Your task to perform on an android device: see creations saved in the google photos Image 0: 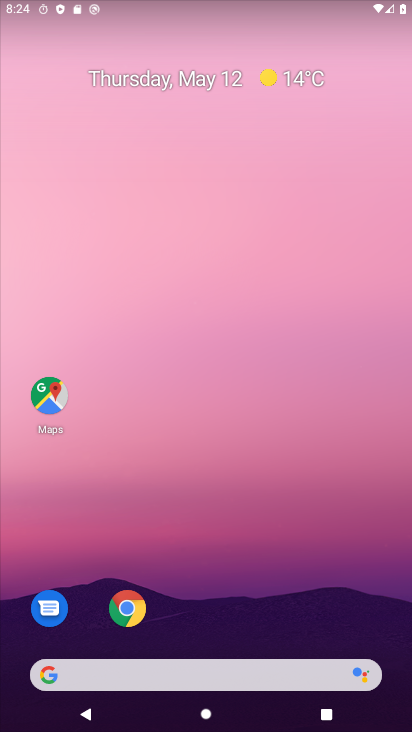
Step 0: drag from (294, 559) to (352, 147)
Your task to perform on an android device: see creations saved in the google photos Image 1: 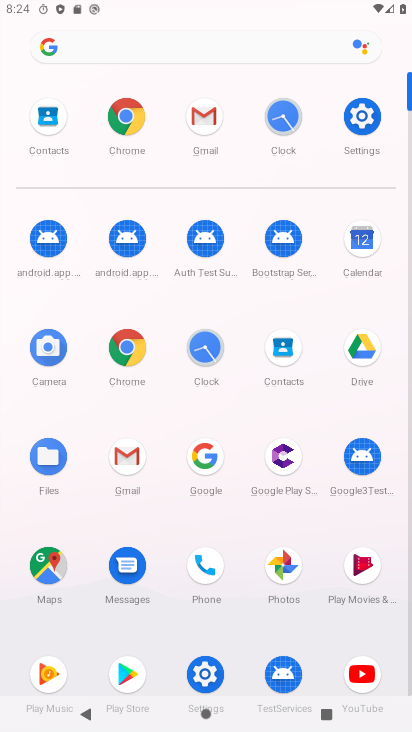
Step 1: click (301, 562)
Your task to perform on an android device: see creations saved in the google photos Image 2: 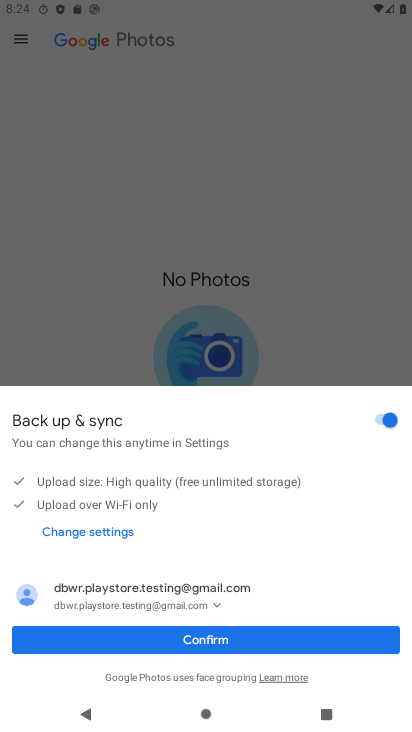
Step 2: click (200, 634)
Your task to perform on an android device: see creations saved in the google photos Image 3: 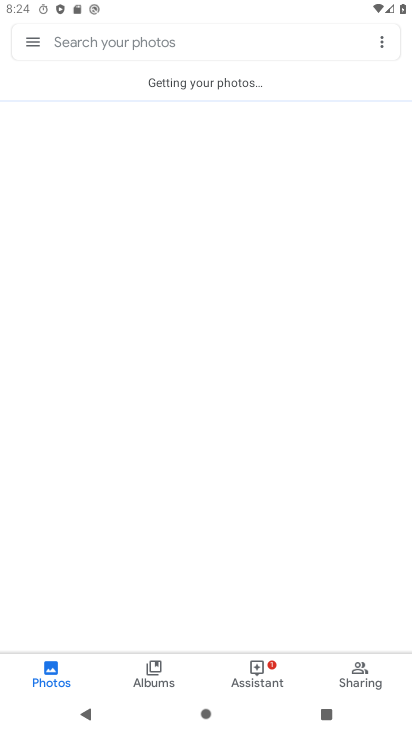
Step 3: click (395, 34)
Your task to perform on an android device: see creations saved in the google photos Image 4: 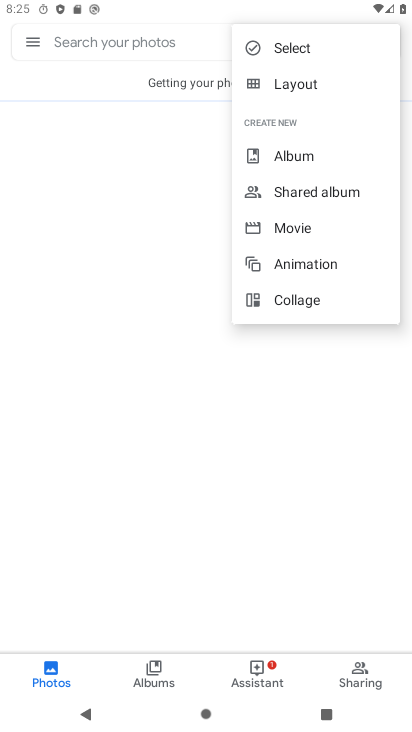
Step 4: click (73, 41)
Your task to perform on an android device: see creations saved in the google photos Image 5: 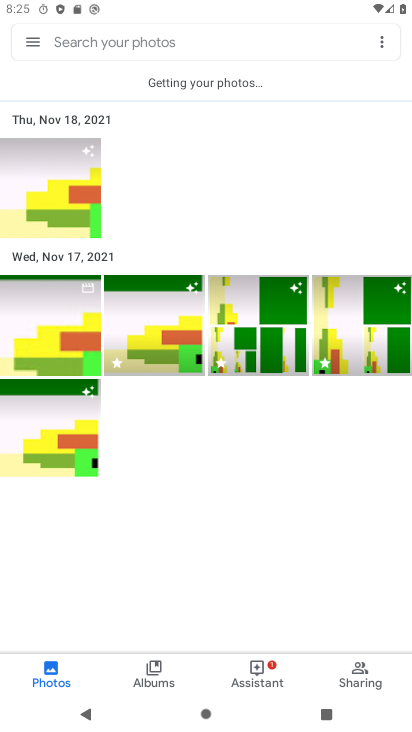
Step 5: click (73, 41)
Your task to perform on an android device: see creations saved in the google photos Image 6: 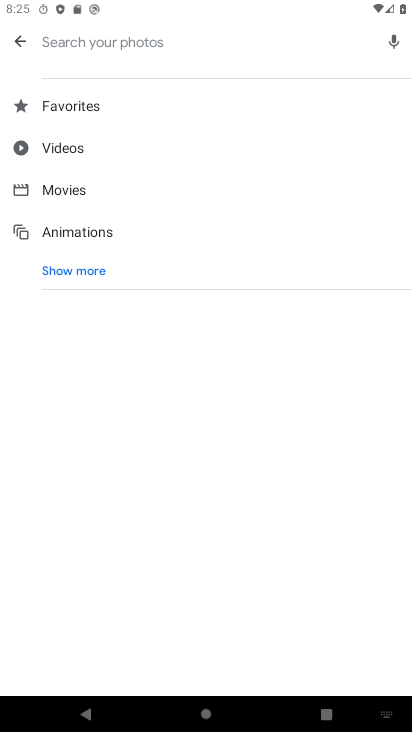
Step 6: click (75, 264)
Your task to perform on an android device: see creations saved in the google photos Image 7: 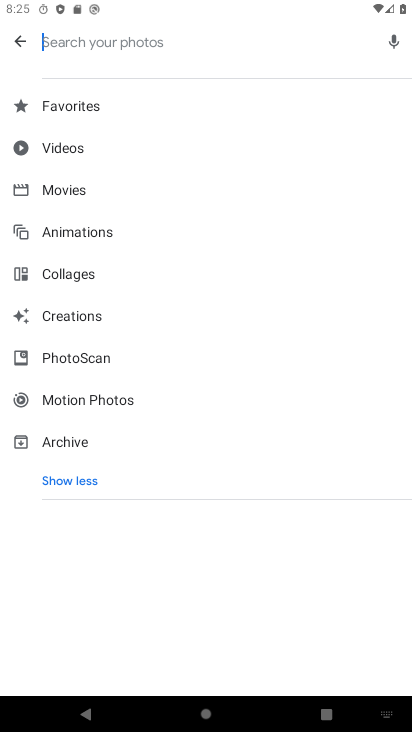
Step 7: click (72, 311)
Your task to perform on an android device: see creations saved in the google photos Image 8: 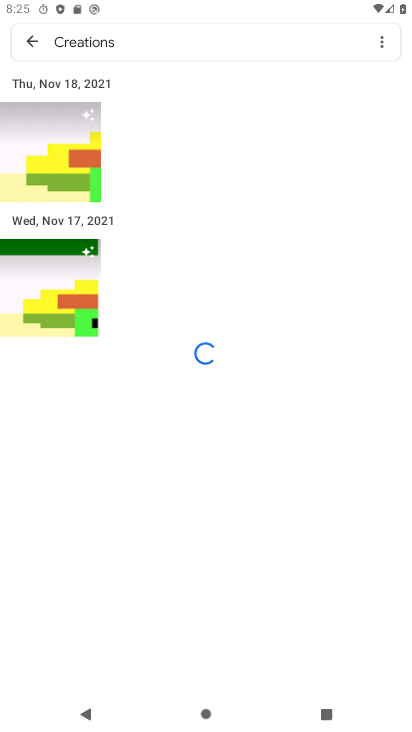
Step 8: task complete